Your task to perform on an android device: empty trash in the gmail app Image 0: 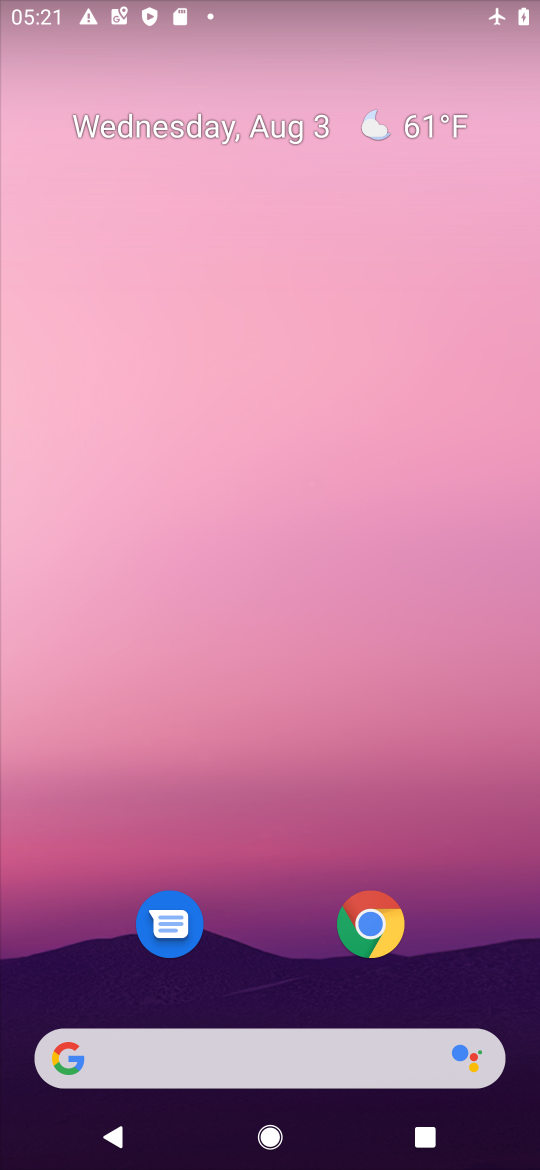
Step 0: drag from (249, 737) to (249, 312)
Your task to perform on an android device: empty trash in the gmail app Image 1: 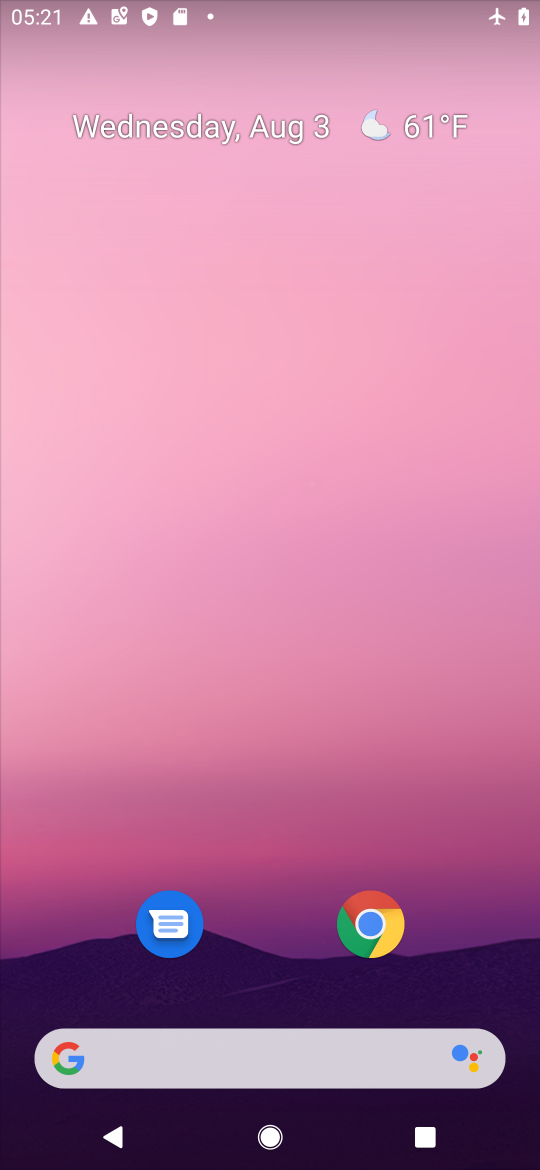
Step 1: click (278, 302)
Your task to perform on an android device: empty trash in the gmail app Image 2: 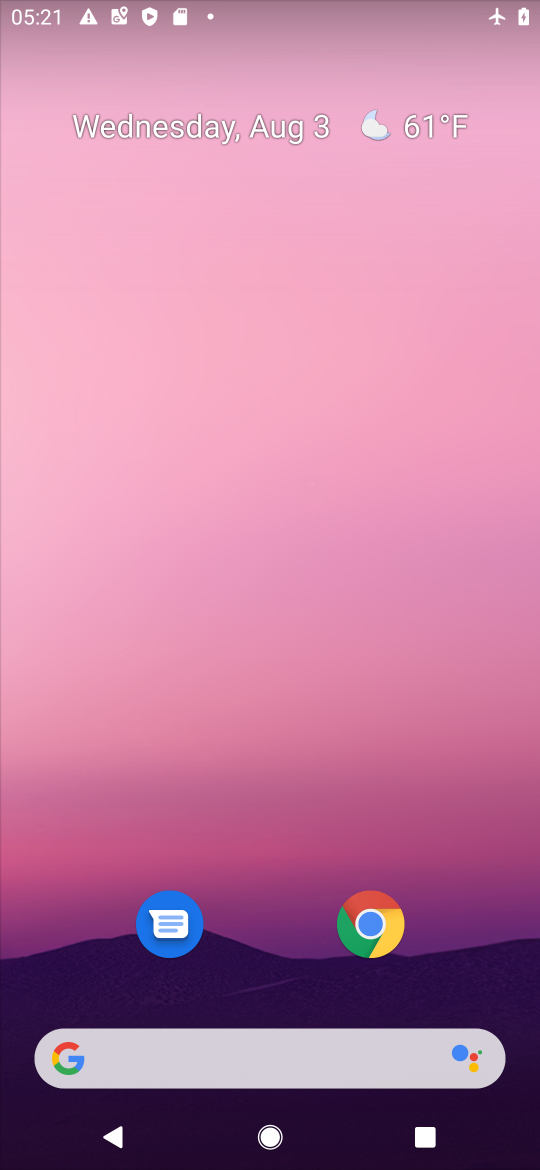
Step 2: drag from (249, 953) to (249, 351)
Your task to perform on an android device: empty trash in the gmail app Image 3: 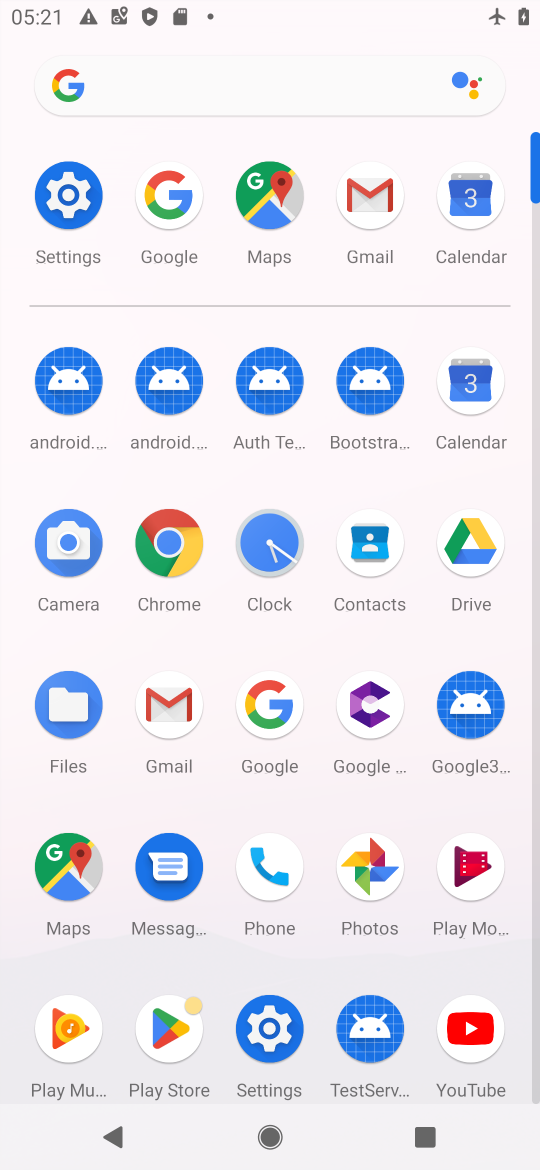
Step 3: click (381, 203)
Your task to perform on an android device: empty trash in the gmail app Image 4: 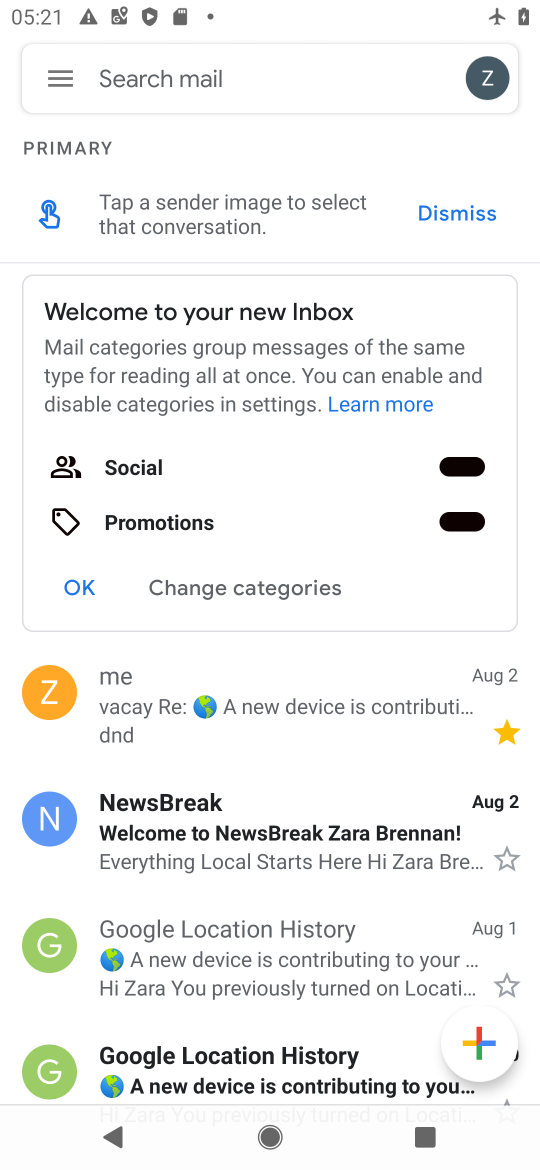
Step 4: click (52, 78)
Your task to perform on an android device: empty trash in the gmail app Image 5: 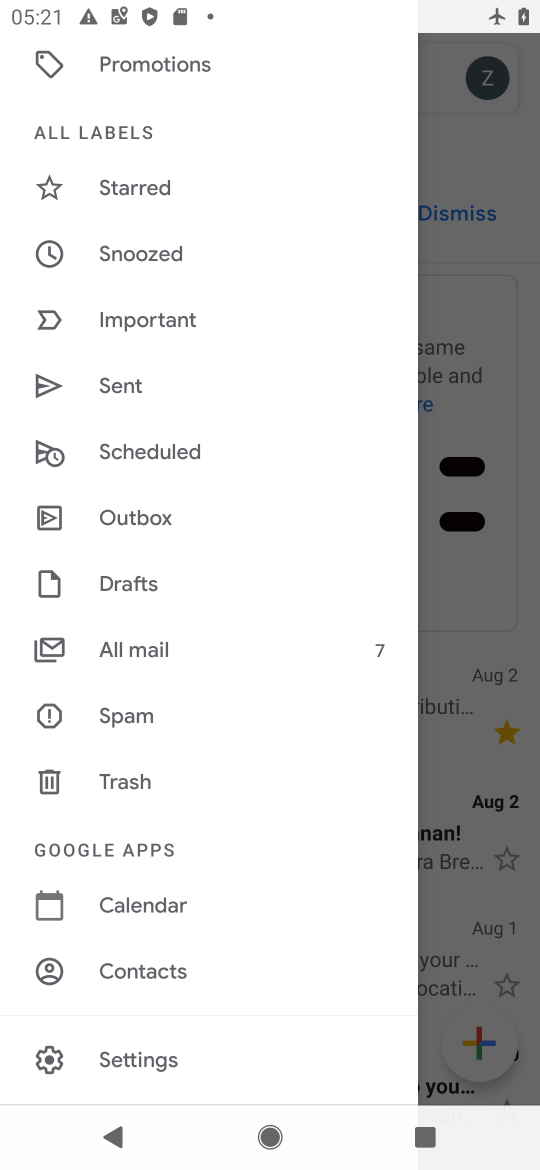
Step 5: click (150, 779)
Your task to perform on an android device: empty trash in the gmail app Image 6: 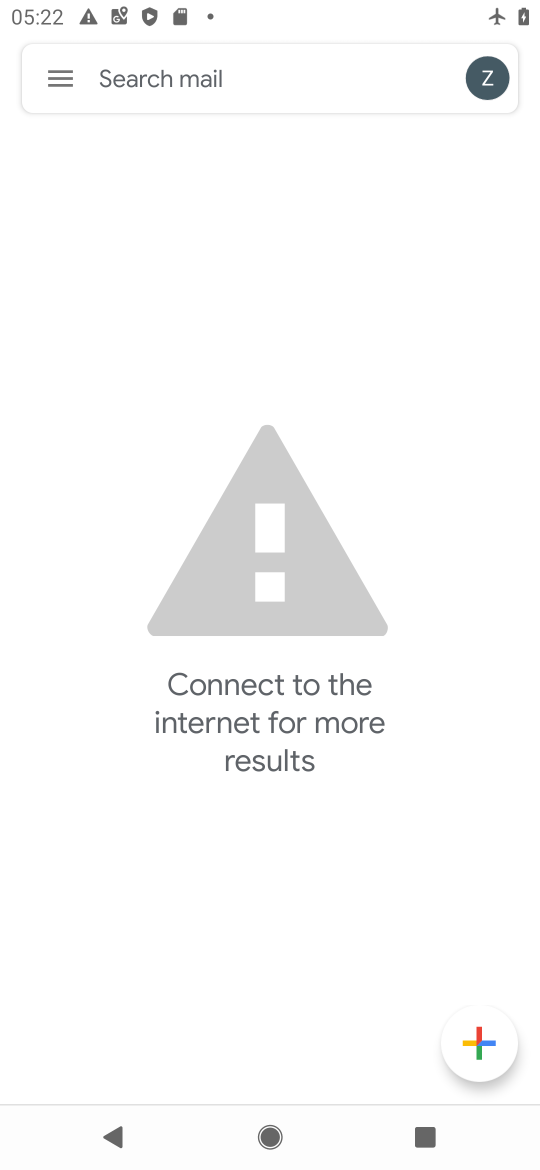
Step 6: task complete